Your task to perform on an android device: set an alarm Image 0: 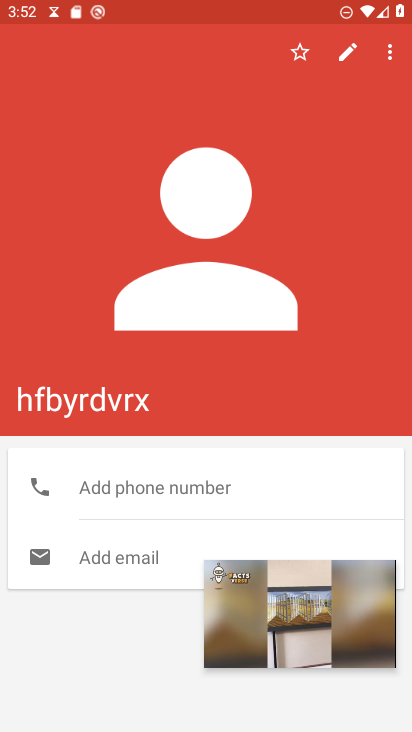
Step 0: press home button
Your task to perform on an android device: set an alarm Image 1: 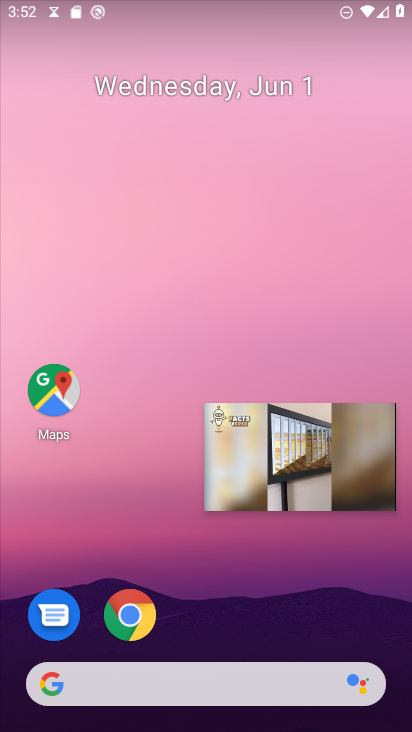
Step 1: click (337, 438)
Your task to perform on an android device: set an alarm Image 2: 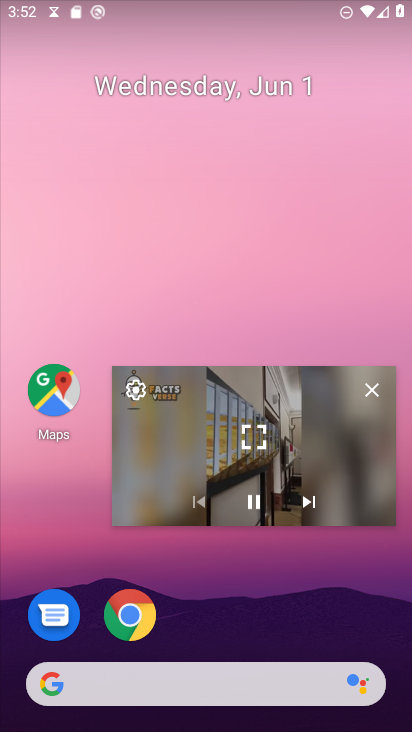
Step 2: click (367, 393)
Your task to perform on an android device: set an alarm Image 3: 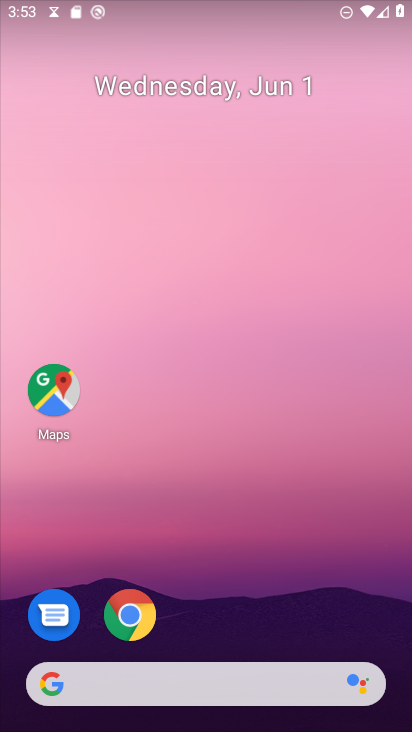
Step 3: drag from (218, 633) to (289, 65)
Your task to perform on an android device: set an alarm Image 4: 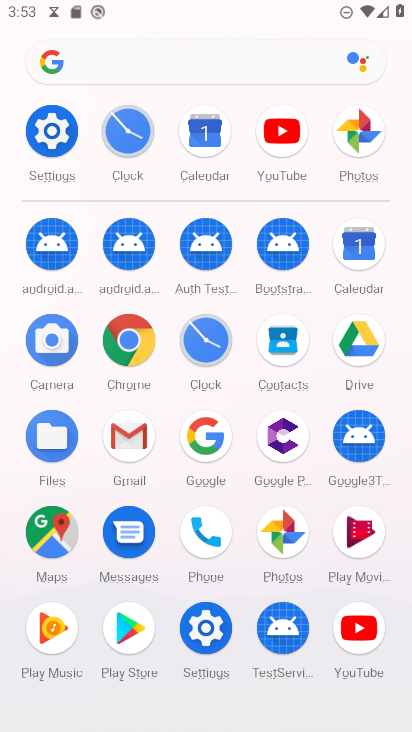
Step 4: click (124, 125)
Your task to perform on an android device: set an alarm Image 5: 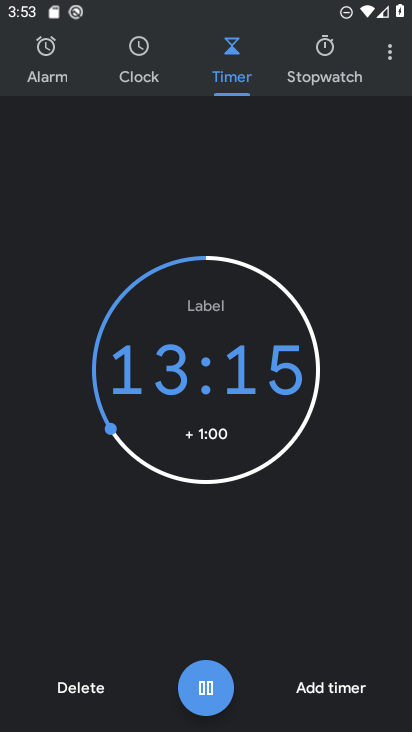
Step 5: click (47, 51)
Your task to perform on an android device: set an alarm Image 6: 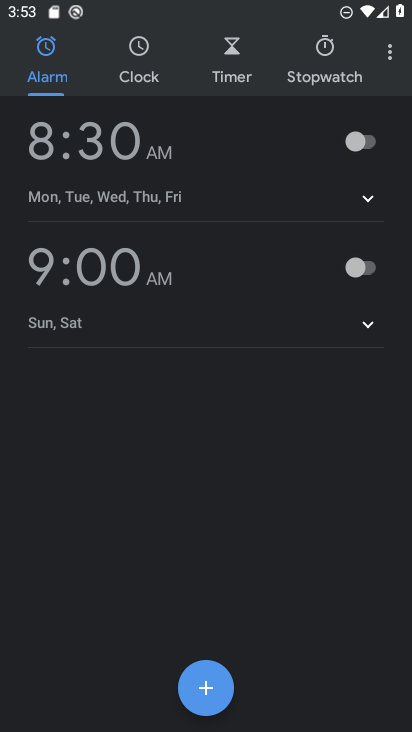
Step 6: click (350, 140)
Your task to perform on an android device: set an alarm Image 7: 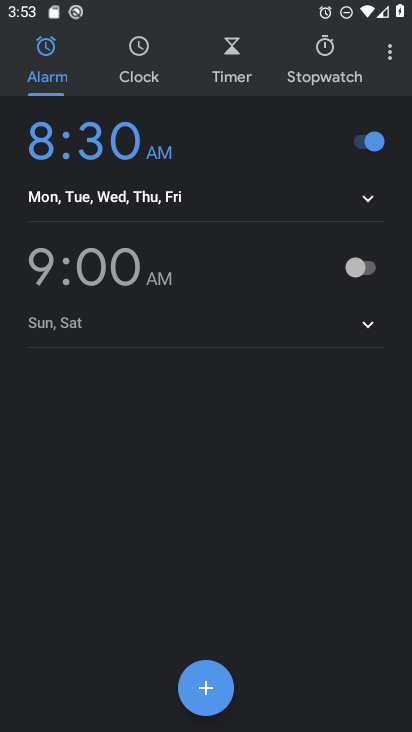
Step 7: task complete